Your task to perform on an android device: Open internet settings Image 0: 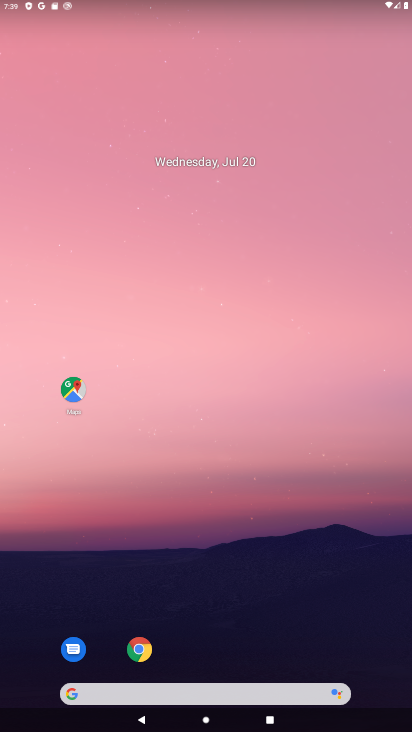
Step 0: drag from (243, 665) to (189, 79)
Your task to perform on an android device: Open internet settings Image 1: 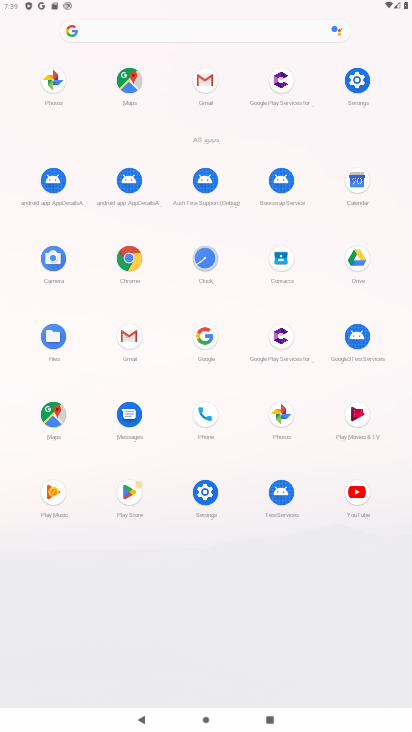
Step 1: click (205, 494)
Your task to perform on an android device: Open internet settings Image 2: 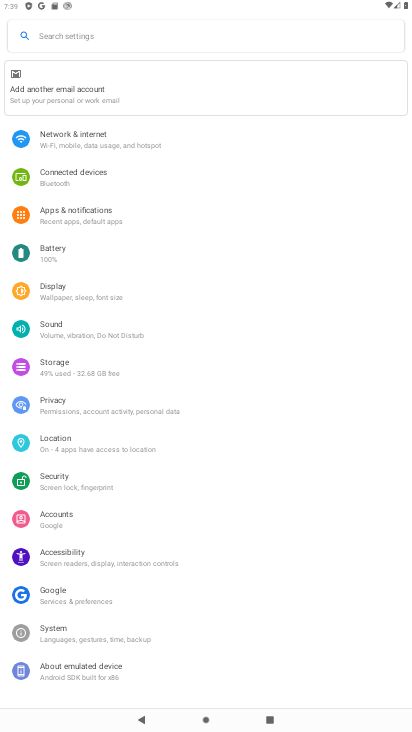
Step 2: click (52, 129)
Your task to perform on an android device: Open internet settings Image 3: 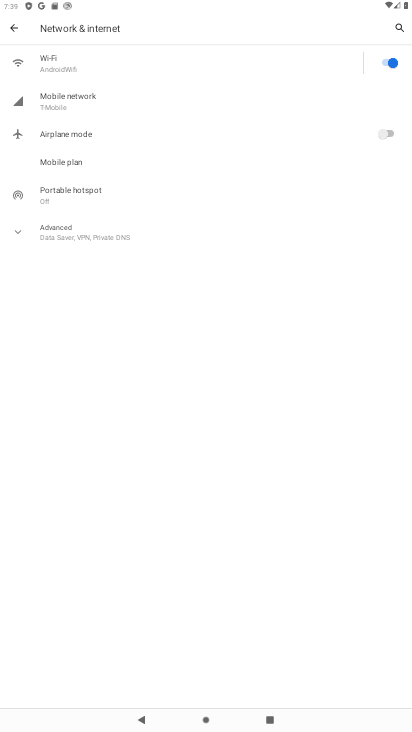
Step 3: click (51, 105)
Your task to perform on an android device: Open internet settings Image 4: 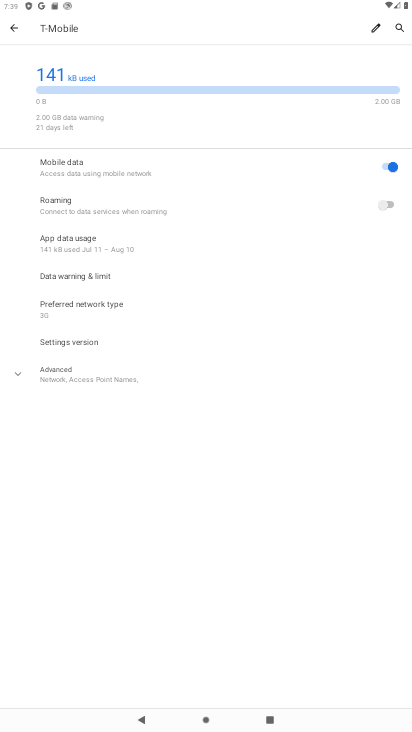
Step 4: task complete